Your task to perform on an android device: Go to location settings Image 0: 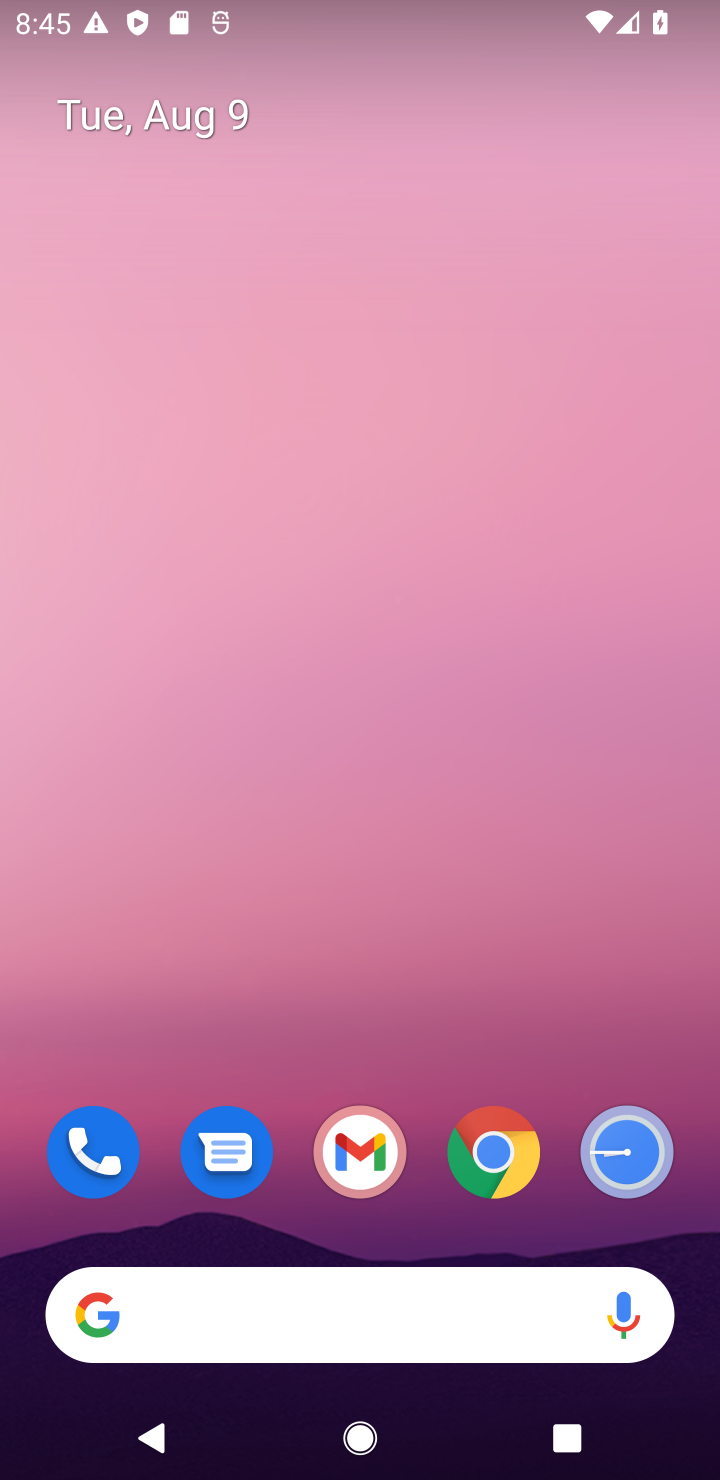
Step 0: drag from (240, 1000) to (176, 309)
Your task to perform on an android device: Go to location settings Image 1: 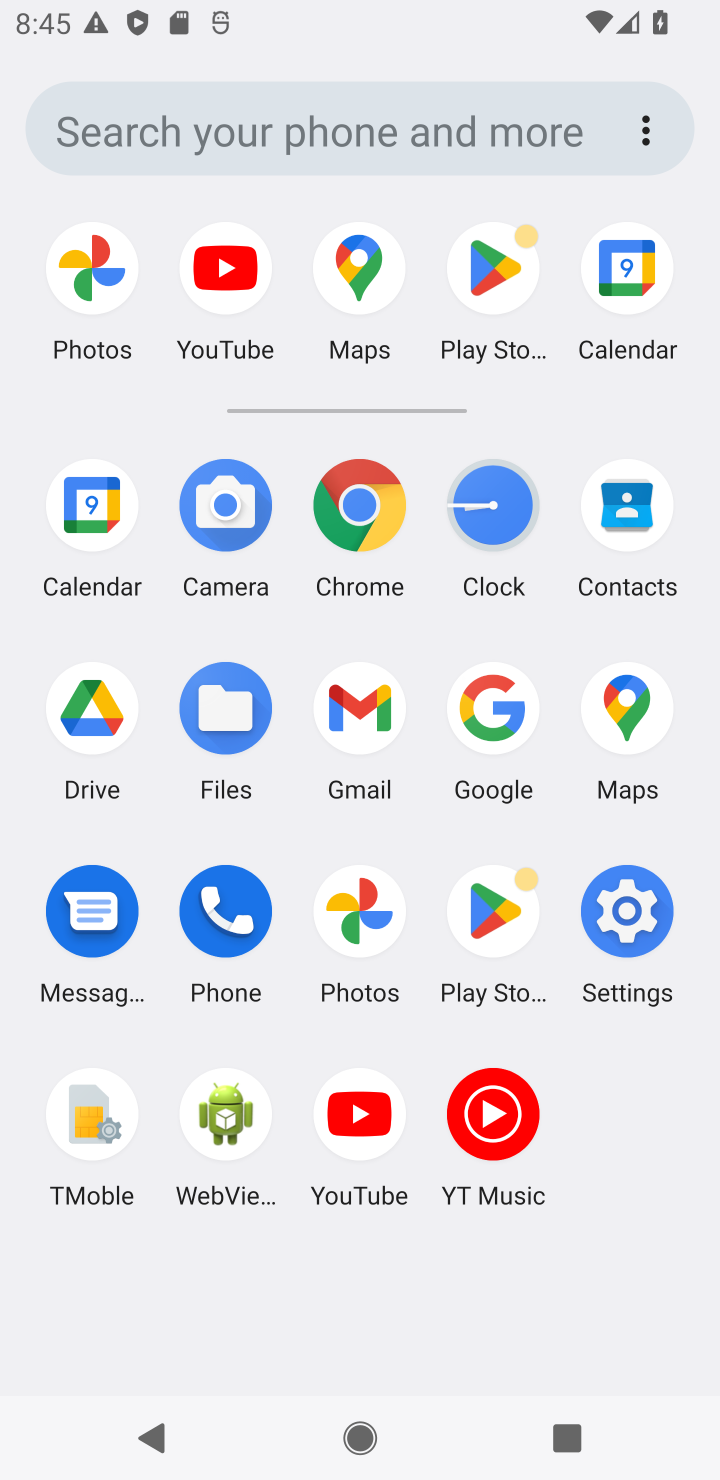
Step 1: click (677, 1051)
Your task to perform on an android device: Go to location settings Image 2: 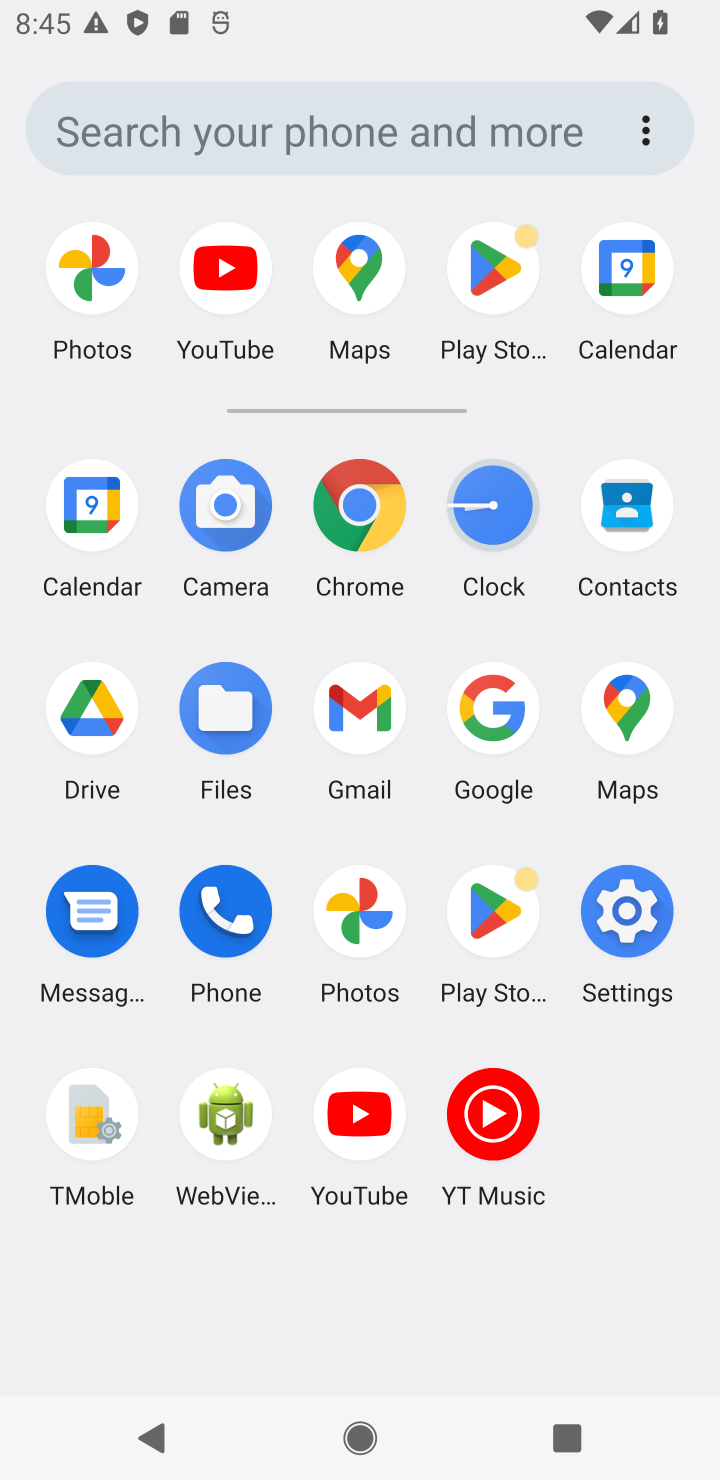
Step 2: click (623, 943)
Your task to perform on an android device: Go to location settings Image 3: 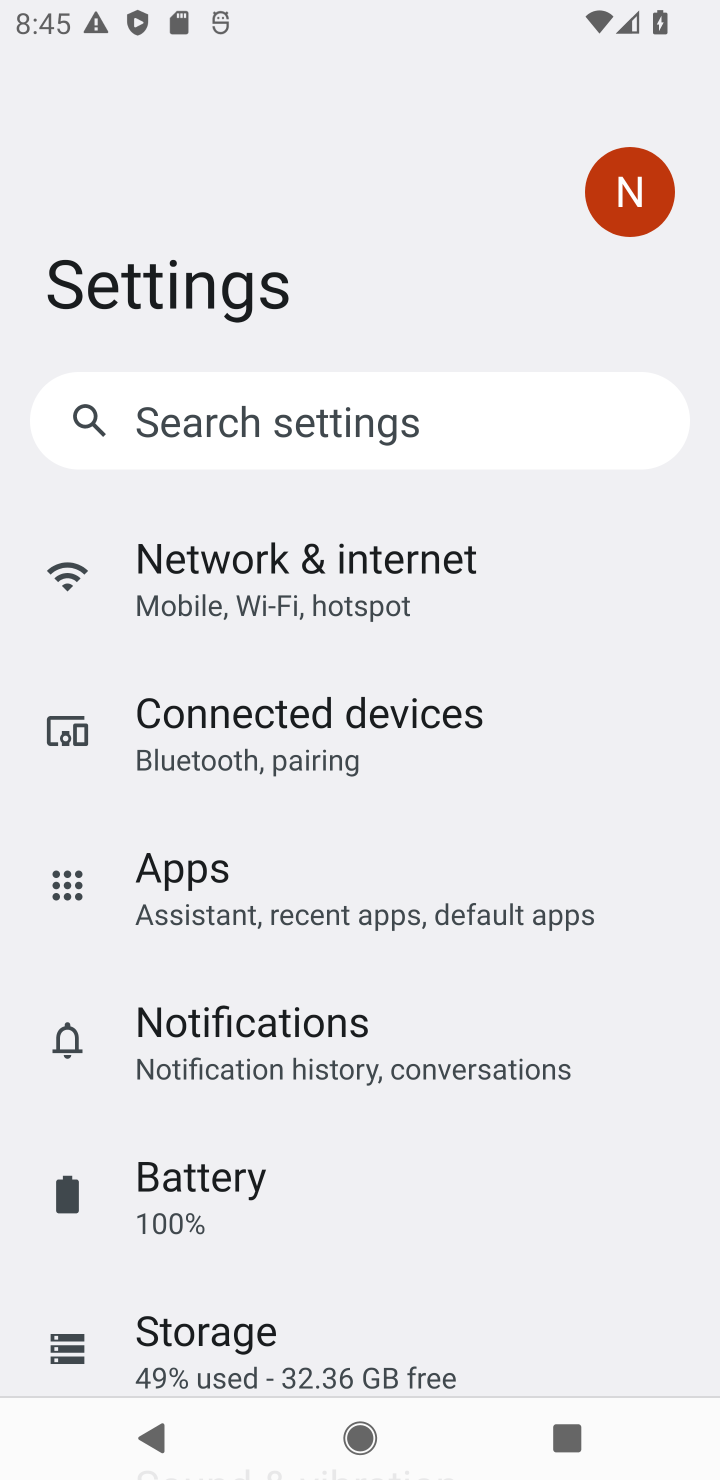
Step 3: click (623, 943)
Your task to perform on an android device: Go to location settings Image 4: 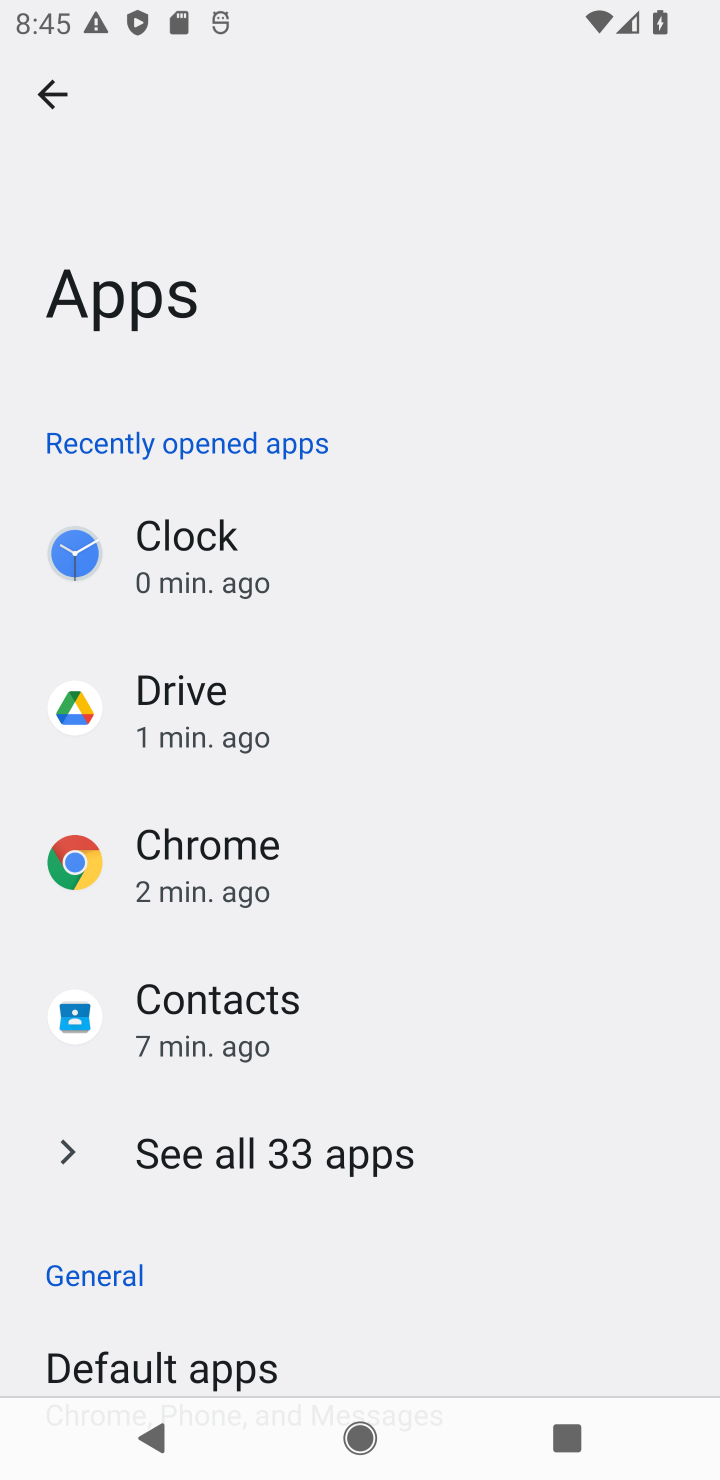
Step 4: click (61, 95)
Your task to perform on an android device: Go to location settings Image 5: 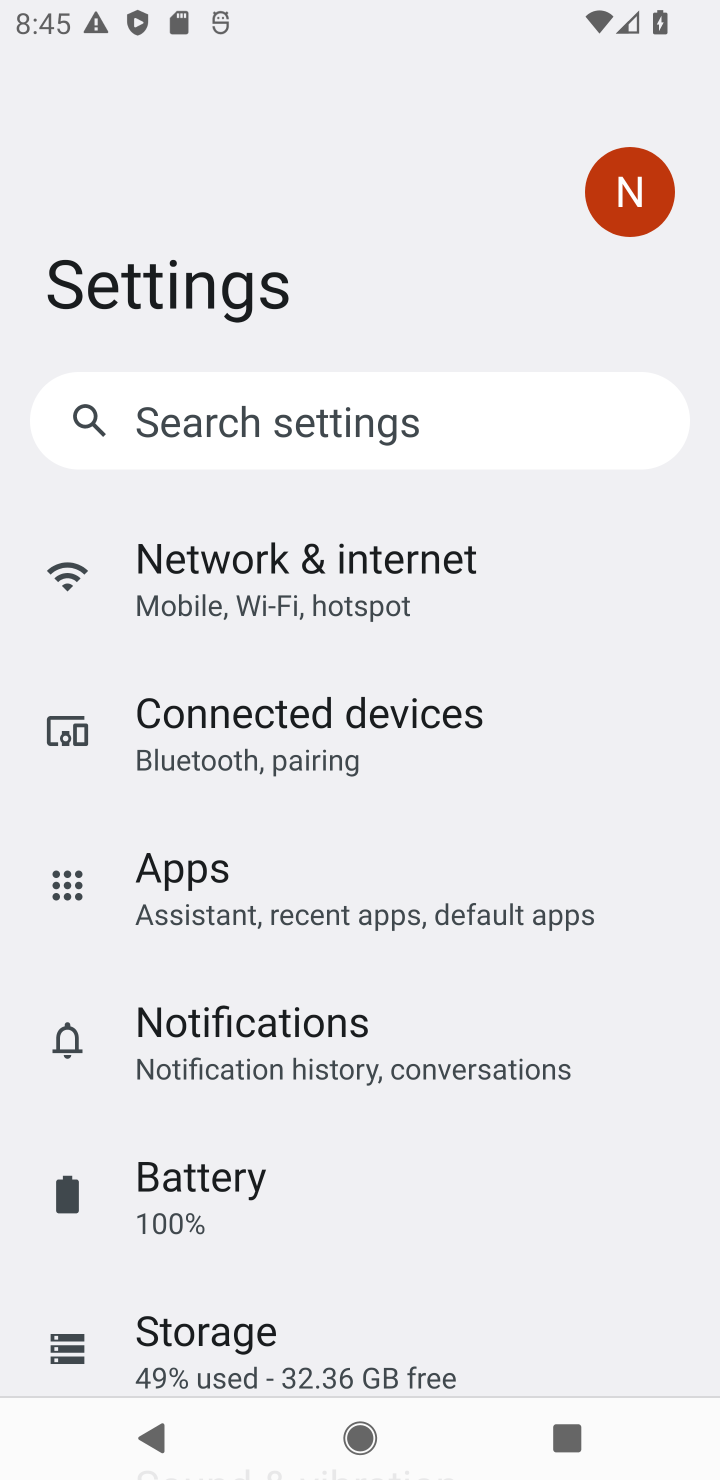
Step 5: drag from (352, 1183) to (383, 598)
Your task to perform on an android device: Go to location settings Image 6: 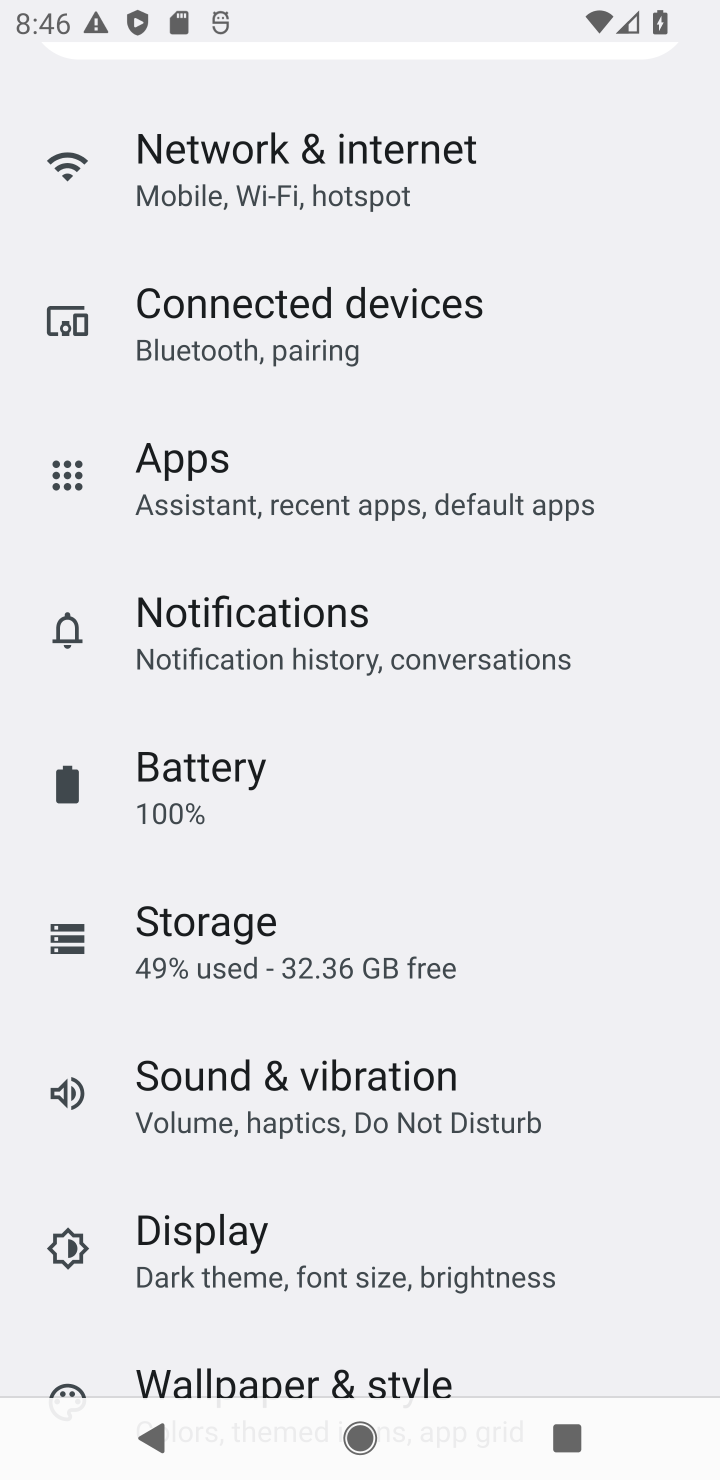
Step 6: drag from (501, 1149) to (617, 559)
Your task to perform on an android device: Go to location settings Image 7: 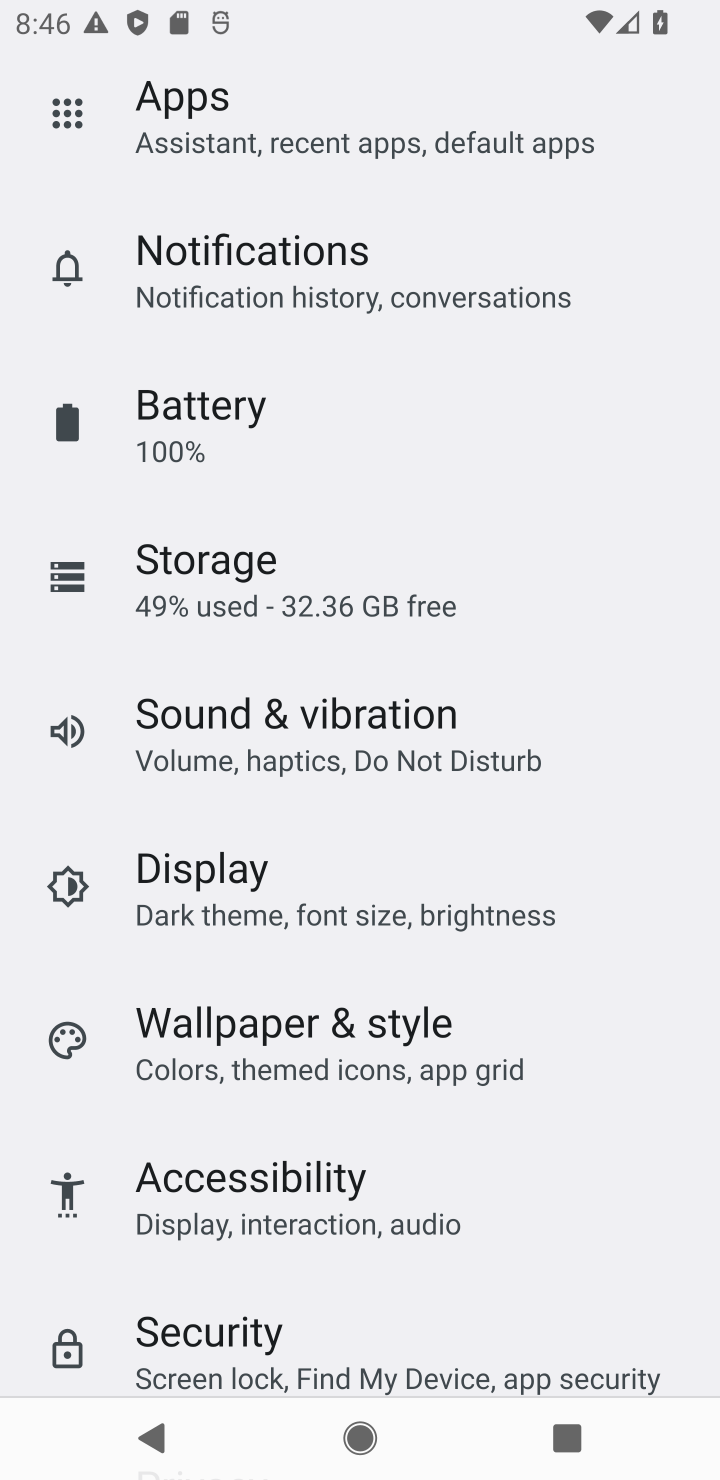
Step 7: drag from (390, 1121) to (311, 648)
Your task to perform on an android device: Go to location settings Image 8: 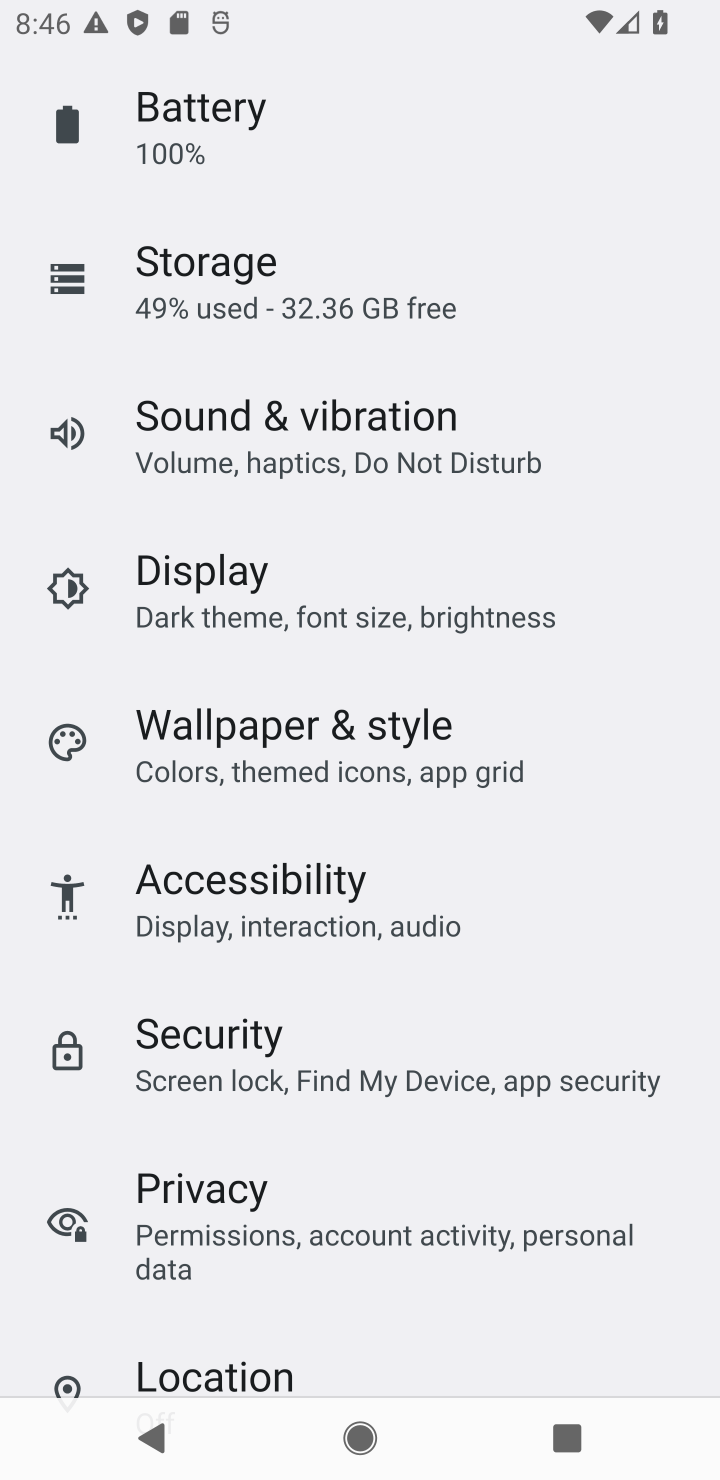
Step 8: click (242, 1362)
Your task to perform on an android device: Go to location settings Image 9: 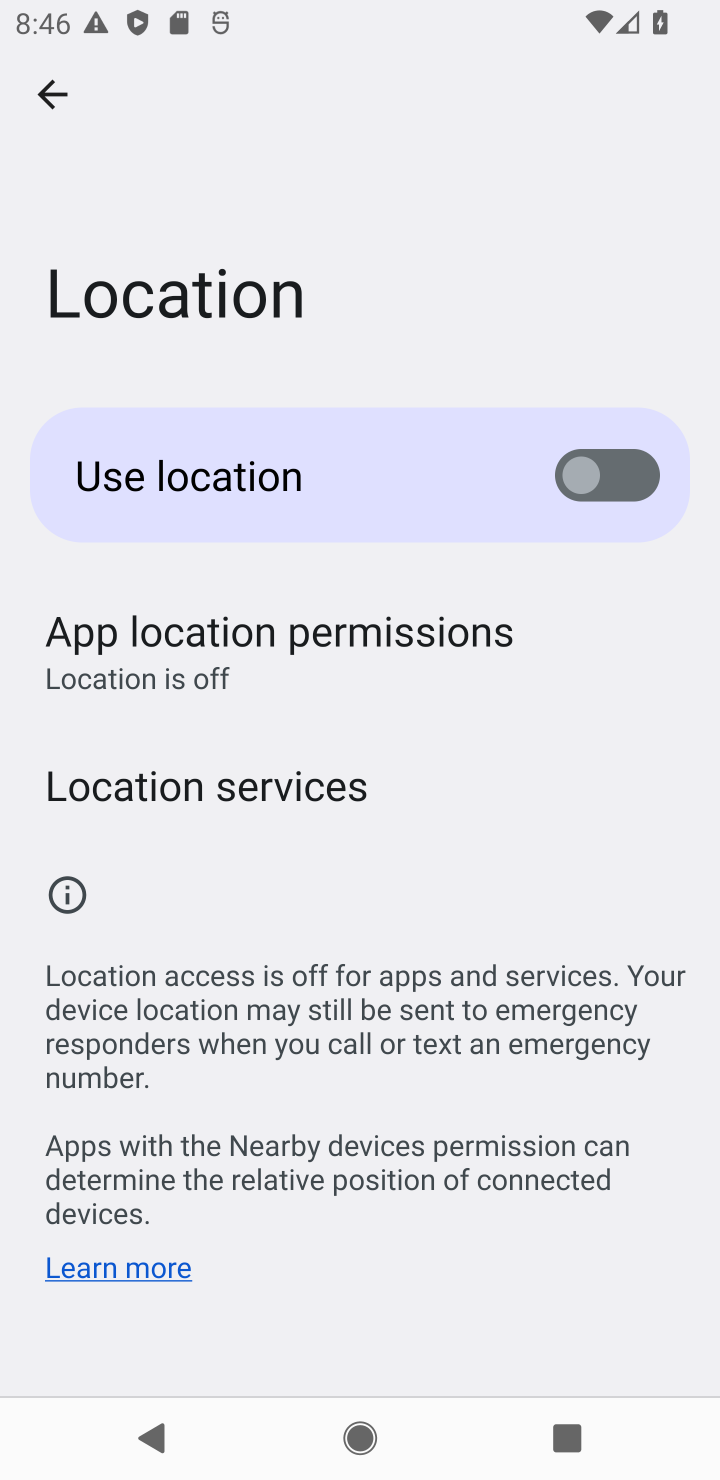
Step 9: task complete